Your task to perform on an android device: Open sound settings Image 0: 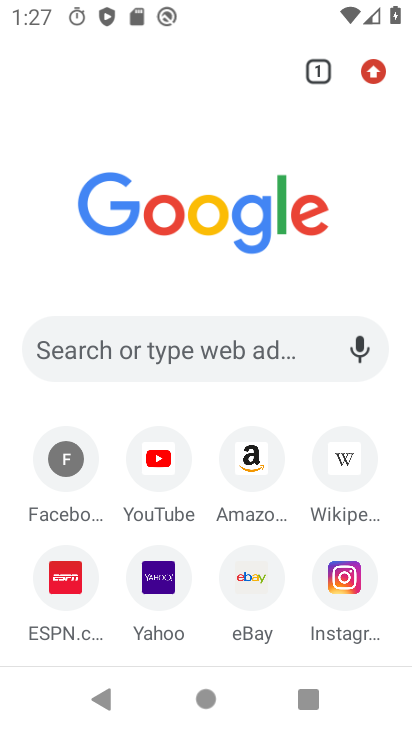
Step 0: press home button
Your task to perform on an android device: Open sound settings Image 1: 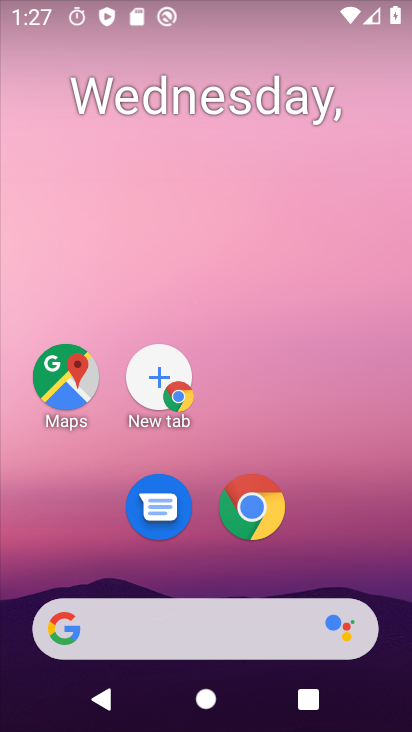
Step 1: drag from (357, 528) to (379, 95)
Your task to perform on an android device: Open sound settings Image 2: 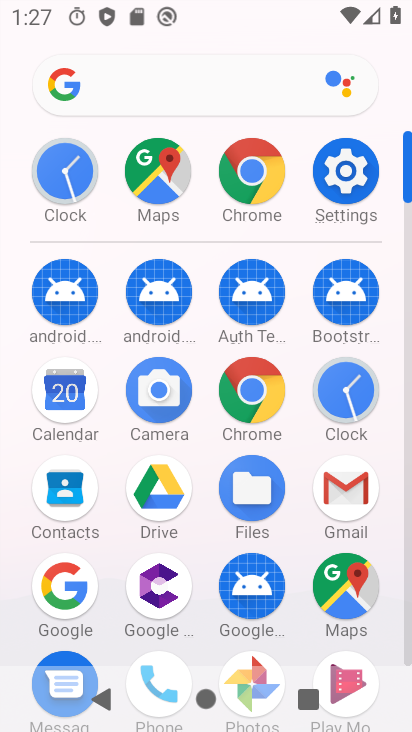
Step 2: click (360, 172)
Your task to perform on an android device: Open sound settings Image 3: 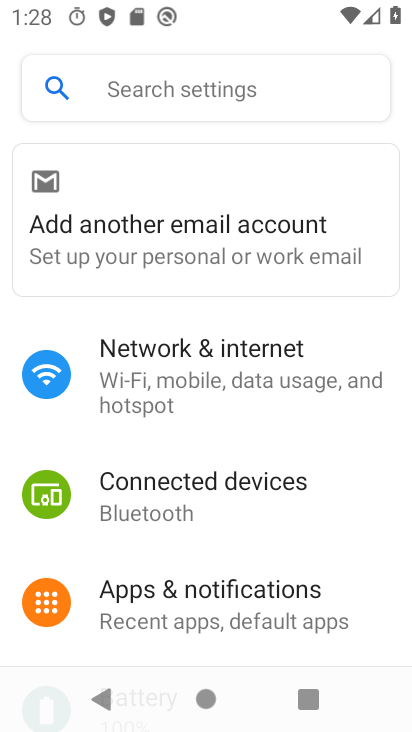
Step 3: drag from (263, 448) to (266, 136)
Your task to perform on an android device: Open sound settings Image 4: 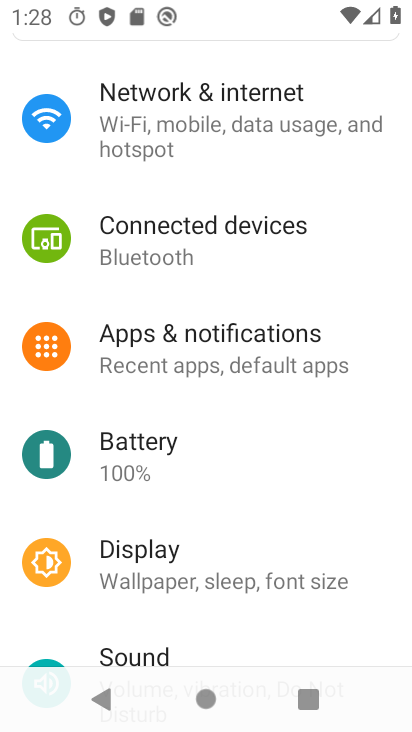
Step 4: drag from (280, 519) to (279, 145)
Your task to perform on an android device: Open sound settings Image 5: 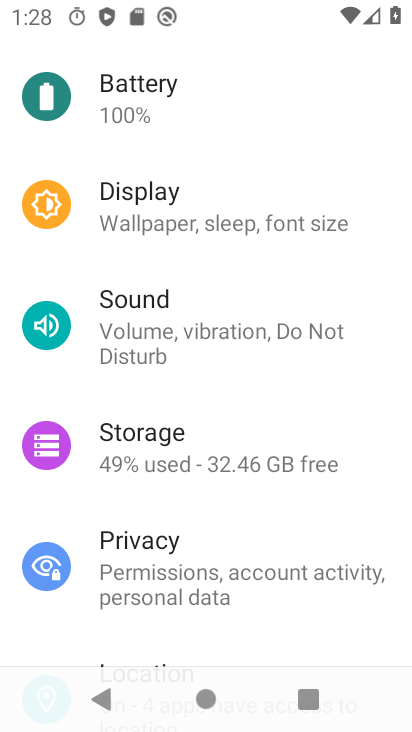
Step 5: drag from (294, 537) to (324, 155)
Your task to perform on an android device: Open sound settings Image 6: 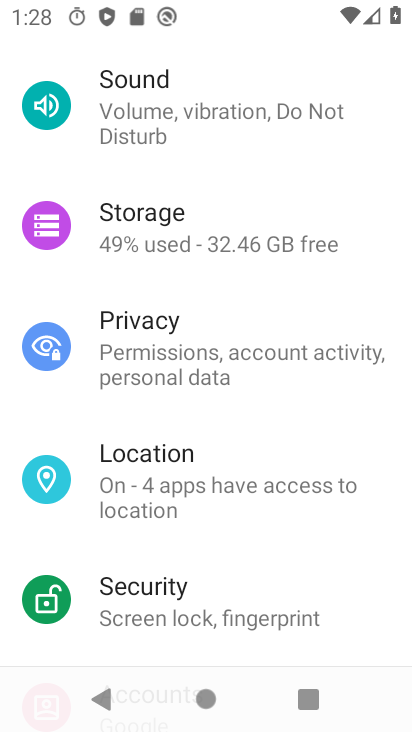
Step 6: drag from (238, 599) to (240, 288)
Your task to perform on an android device: Open sound settings Image 7: 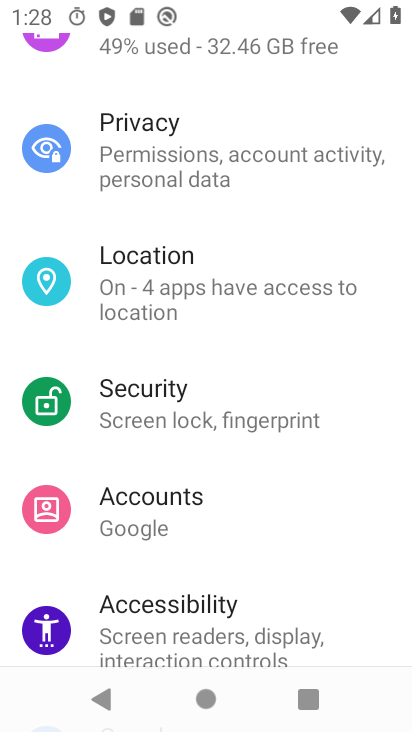
Step 7: drag from (200, 573) to (268, 206)
Your task to perform on an android device: Open sound settings Image 8: 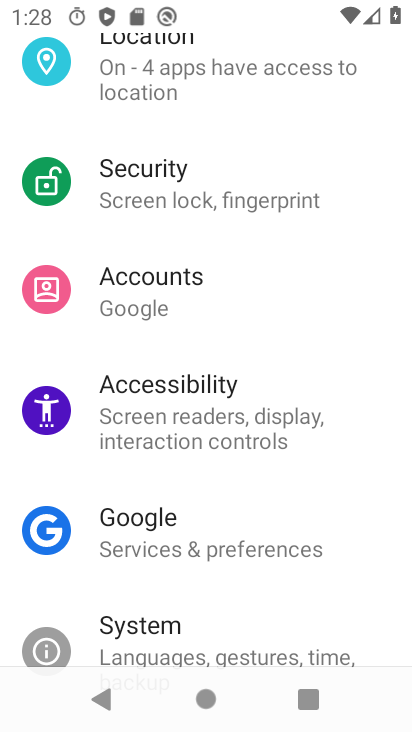
Step 8: drag from (220, 581) to (279, 126)
Your task to perform on an android device: Open sound settings Image 9: 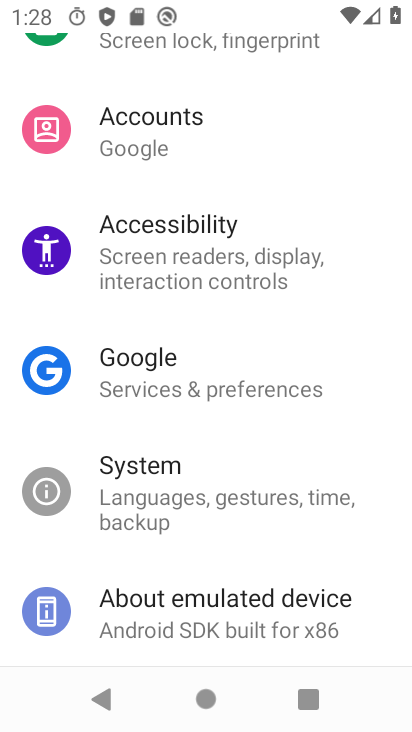
Step 9: drag from (246, 548) to (307, 208)
Your task to perform on an android device: Open sound settings Image 10: 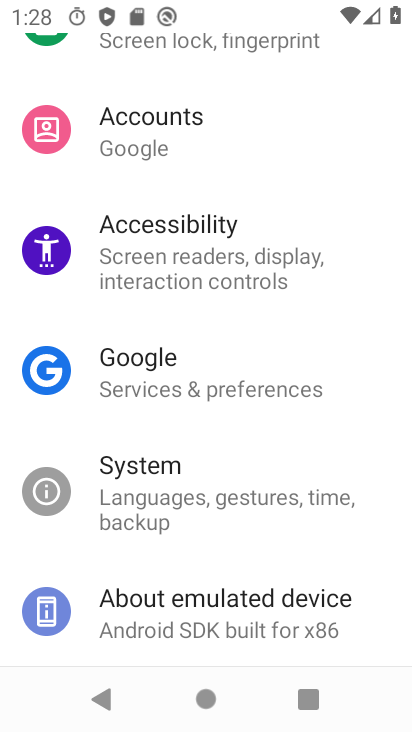
Step 10: drag from (272, 556) to (356, 157)
Your task to perform on an android device: Open sound settings Image 11: 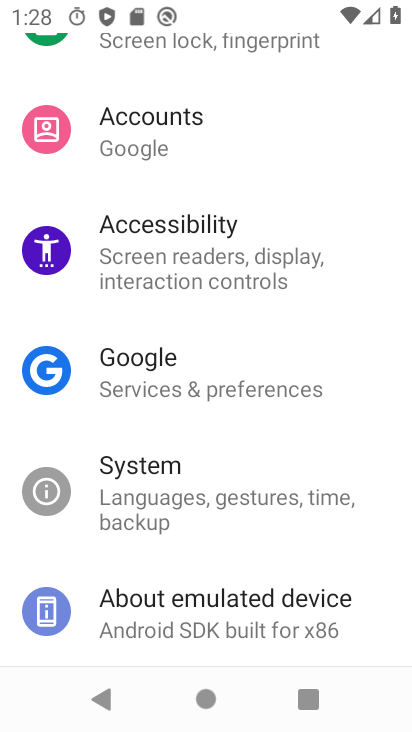
Step 11: drag from (356, 157) to (297, 547)
Your task to perform on an android device: Open sound settings Image 12: 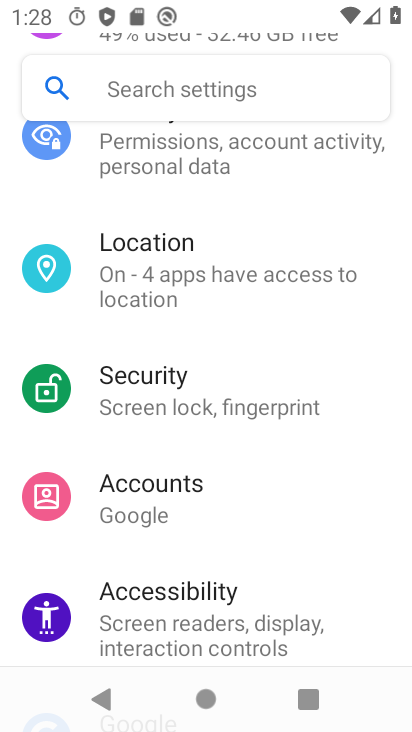
Step 12: drag from (306, 249) to (251, 608)
Your task to perform on an android device: Open sound settings Image 13: 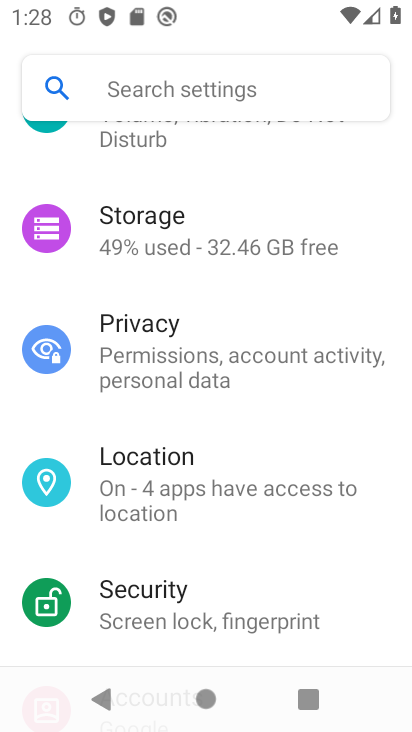
Step 13: drag from (261, 268) to (215, 576)
Your task to perform on an android device: Open sound settings Image 14: 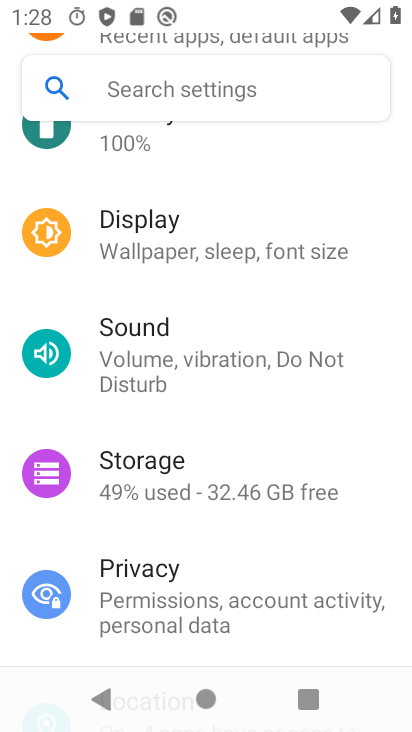
Step 14: click (176, 341)
Your task to perform on an android device: Open sound settings Image 15: 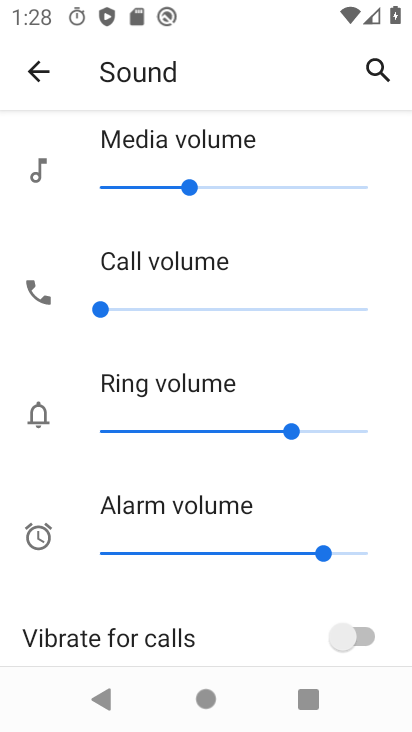
Step 15: drag from (195, 621) to (284, 192)
Your task to perform on an android device: Open sound settings Image 16: 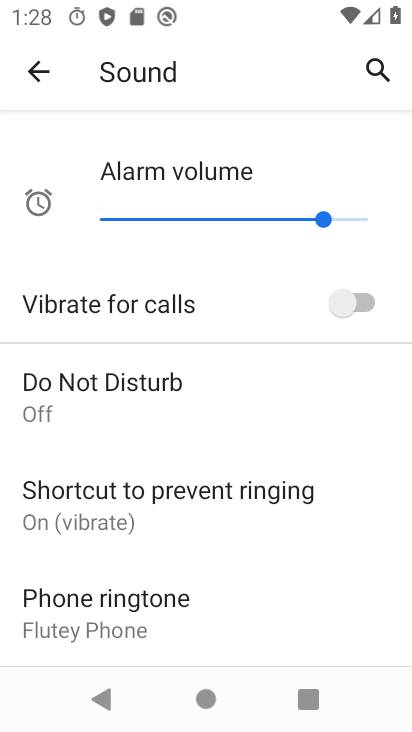
Step 16: drag from (238, 541) to (261, 212)
Your task to perform on an android device: Open sound settings Image 17: 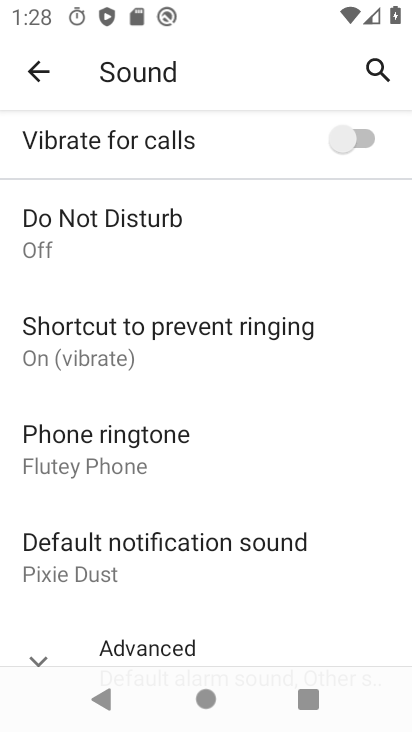
Step 17: click (84, 209)
Your task to perform on an android device: Open sound settings Image 18: 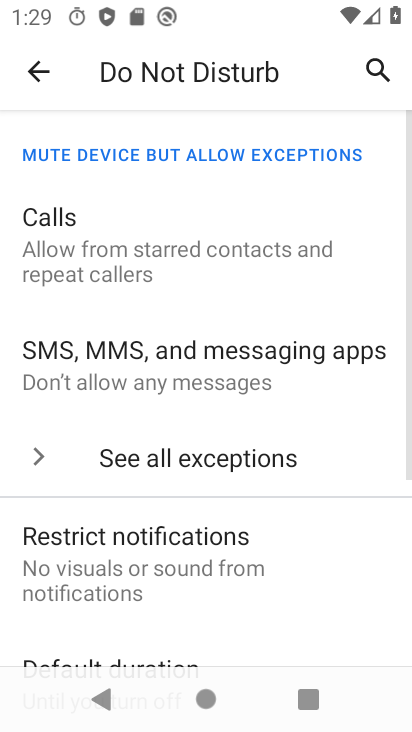
Step 18: drag from (214, 538) to (288, 187)
Your task to perform on an android device: Open sound settings Image 19: 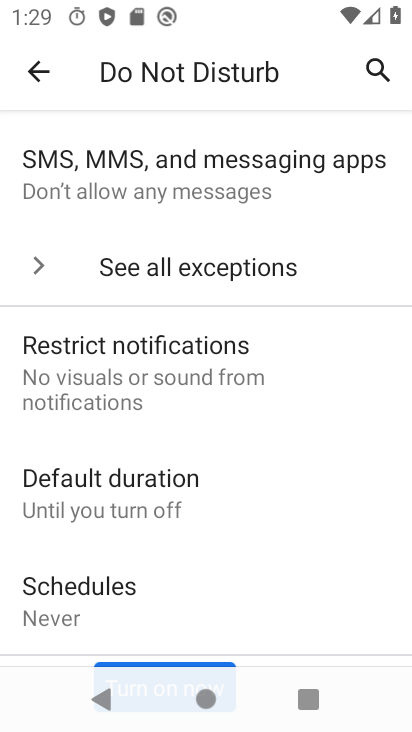
Step 19: drag from (239, 524) to (291, 159)
Your task to perform on an android device: Open sound settings Image 20: 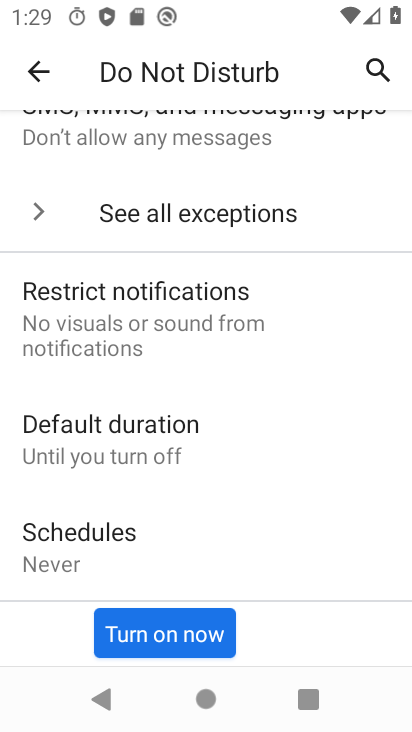
Step 20: click (195, 627)
Your task to perform on an android device: Open sound settings Image 21: 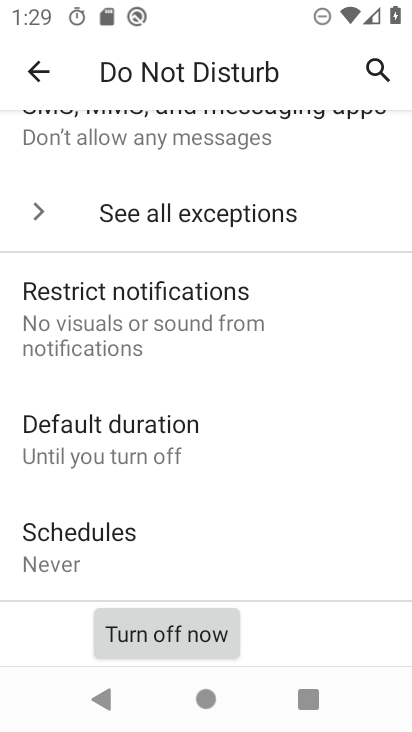
Step 21: task complete